Your task to perform on an android device: Go to accessibility settings Image 0: 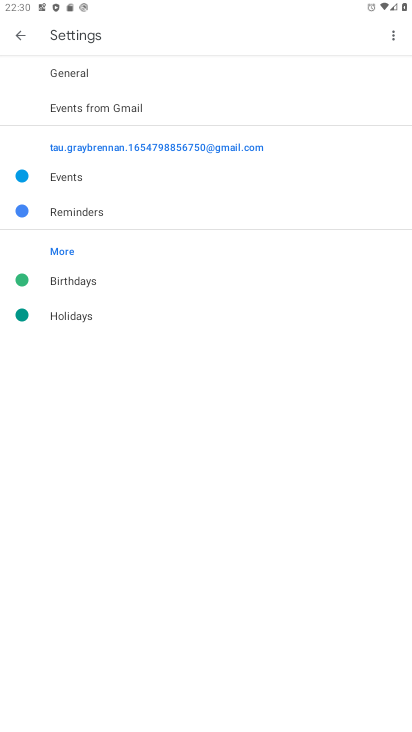
Step 0: press home button
Your task to perform on an android device: Go to accessibility settings Image 1: 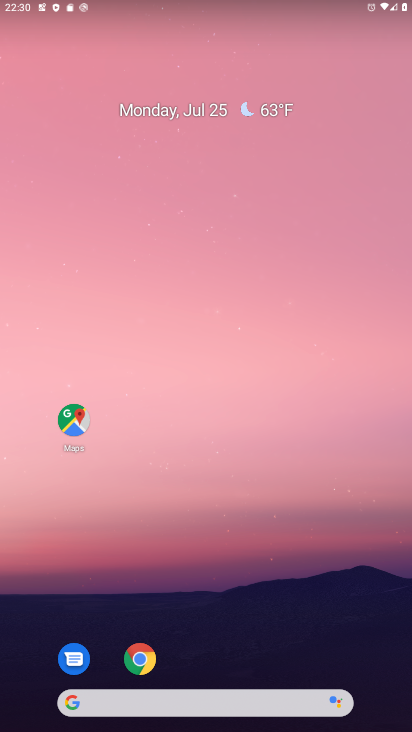
Step 1: drag from (208, 641) to (208, 74)
Your task to perform on an android device: Go to accessibility settings Image 2: 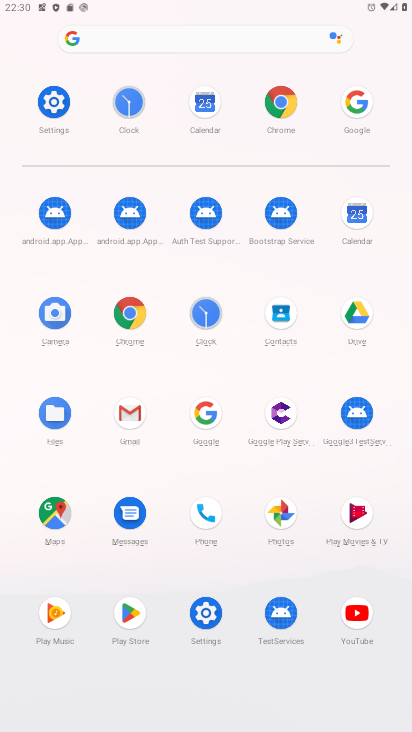
Step 2: click (58, 92)
Your task to perform on an android device: Go to accessibility settings Image 3: 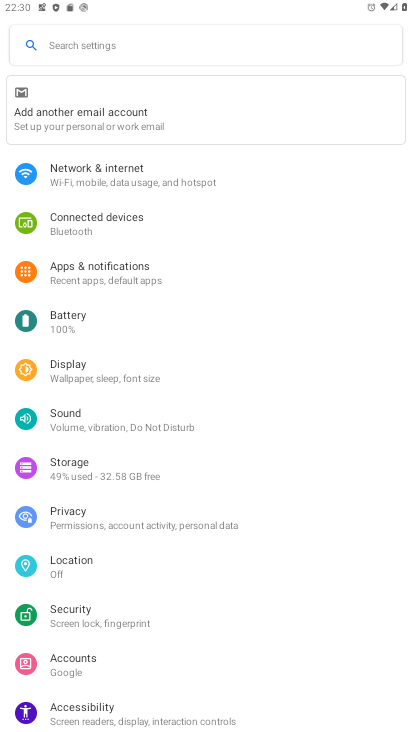
Step 3: click (75, 706)
Your task to perform on an android device: Go to accessibility settings Image 4: 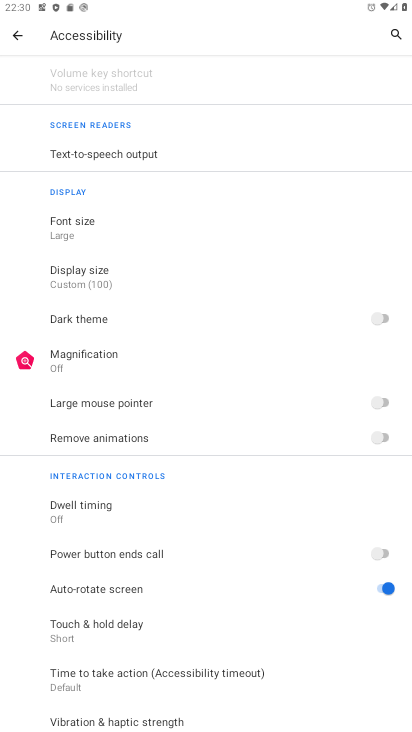
Step 4: task complete